Your task to perform on an android device: open a bookmark in the chrome app Image 0: 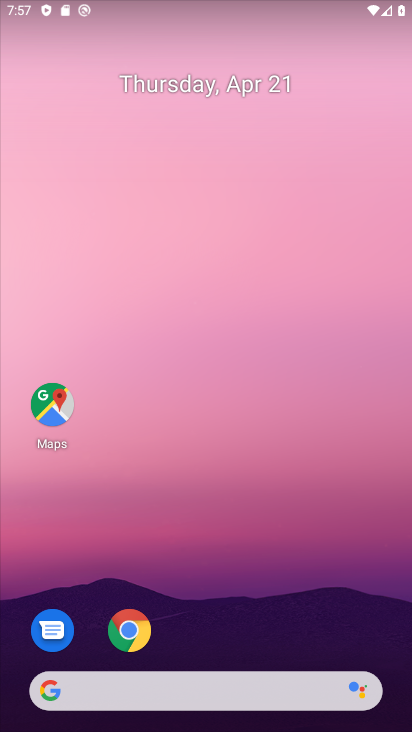
Step 0: drag from (321, 617) to (296, 41)
Your task to perform on an android device: open a bookmark in the chrome app Image 1: 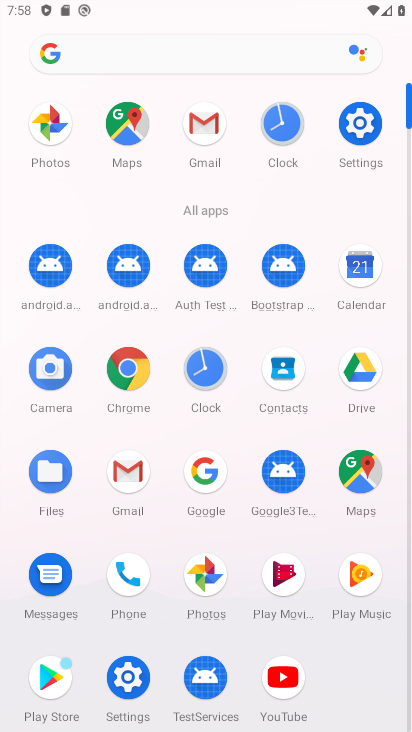
Step 1: click (128, 368)
Your task to perform on an android device: open a bookmark in the chrome app Image 2: 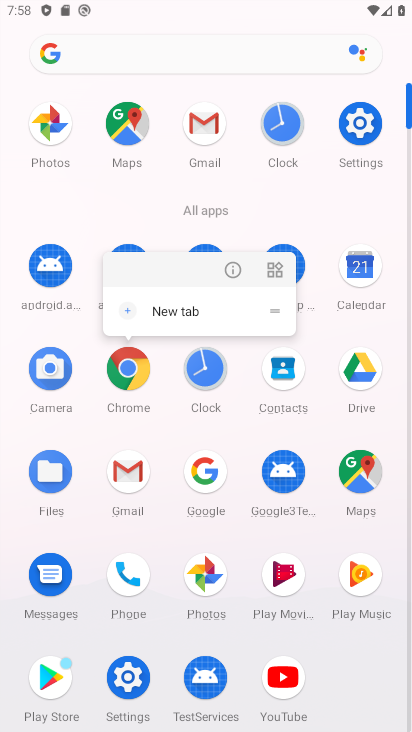
Step 2: click (133, 371)
Your task to perform on an android device: open a bookmark in the chrome app Image 3: 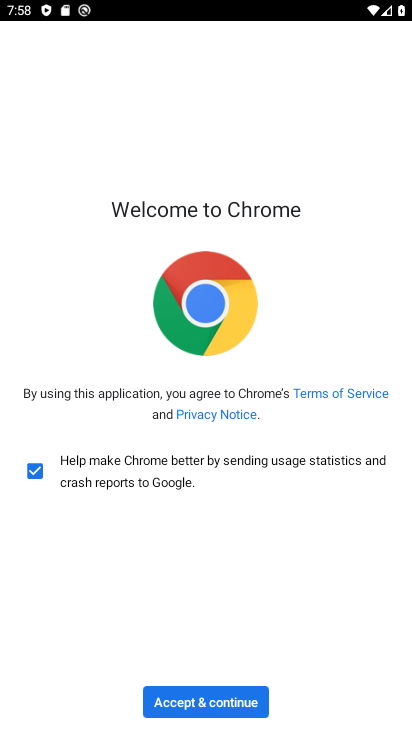
Step 3: click (189, 697)
Your task to perform on an android device: open a bookmark in the chrome app Image 4: 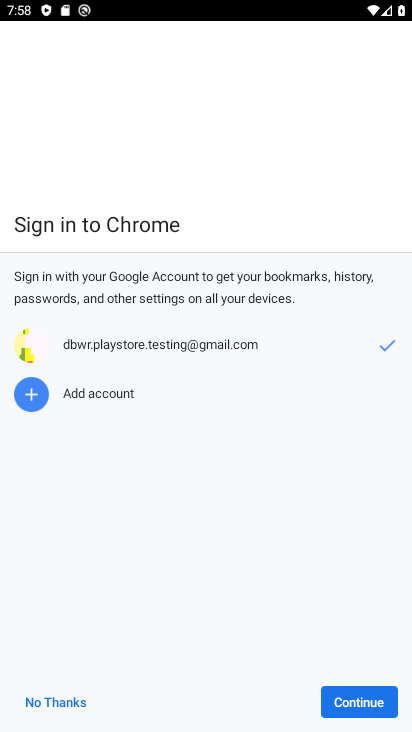
Step 4: click (338, 703)
Your task to perform on an android device: open a bookmark in the chrome app Image 5: 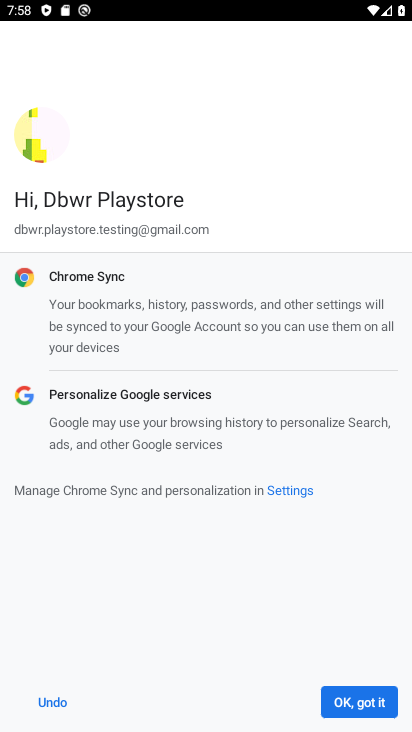
Step 5: click (338, 703)
Your task to perform on an android device: open a bookmark in the chrome app Image 6: 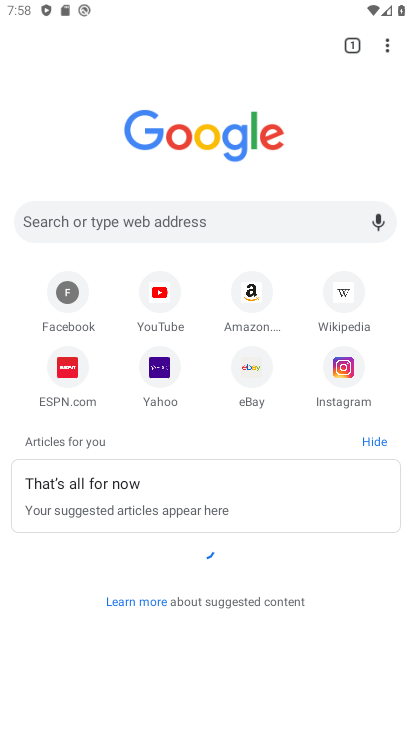
Step 6: click (387, 41)
Your task to perform on an android device: open a bookmark in the chrome app Image 7: 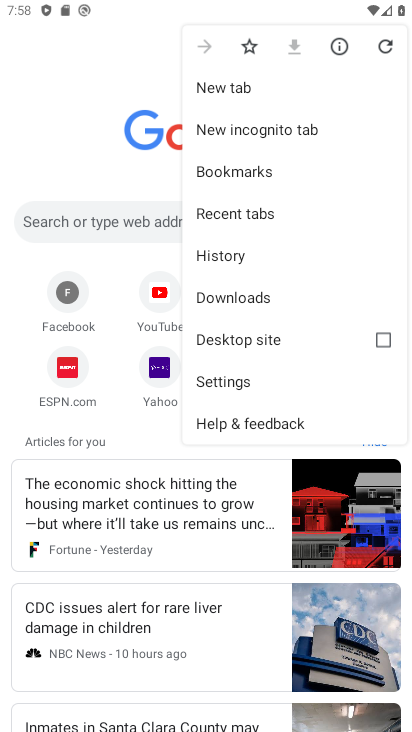
Step 7: click (296, 175)
Your task to perform on an android device: open a bookmark in the chrome app Image 8: 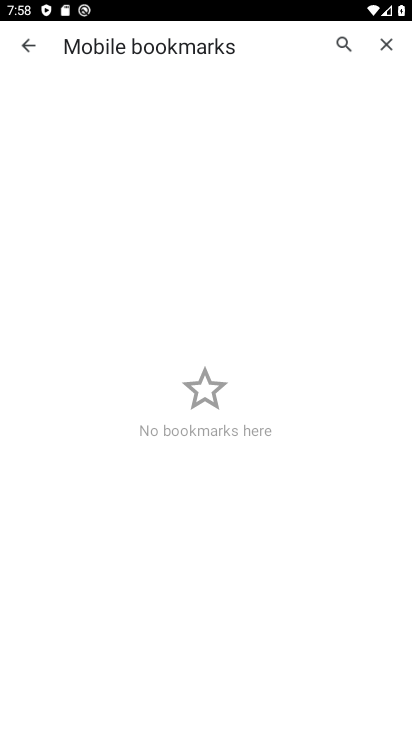
Step 8: task complete